Your task to perform on an android device: Go to Yahoo.com Image 0: 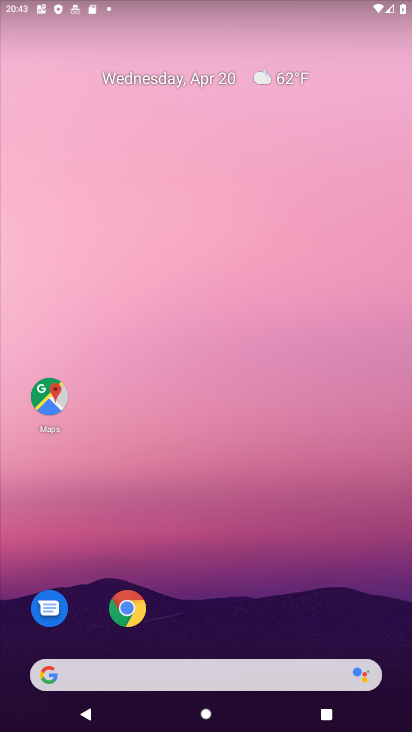
Step 0: drag from (296, 506) to (375, 1)
Your task to perform on an android device: Go to Yahoo.com Image 1: 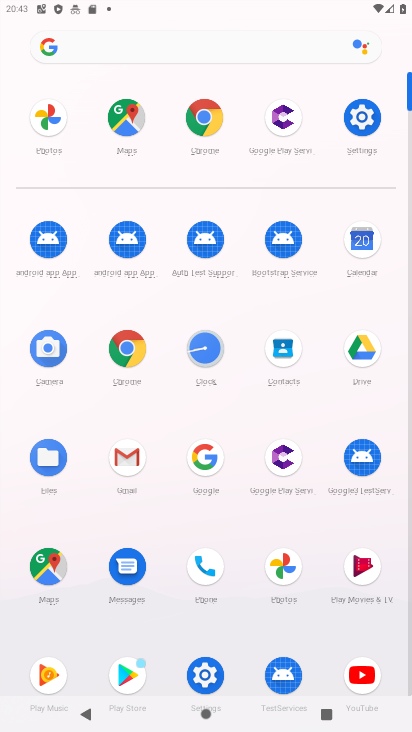
Step 1: click (198, 127)
Your task to perform on an android device: Go to Yahoo.com Image 2: 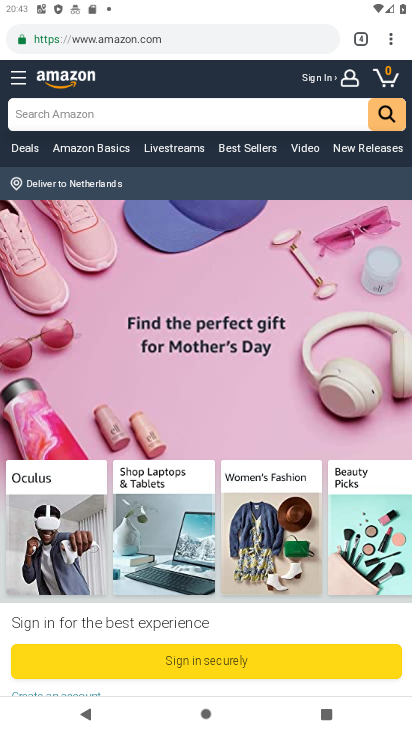
Step 2: drag from (392, 38) to (309, 67)
Your task to perform on an android device: Go to Yahoo.com Image 3: 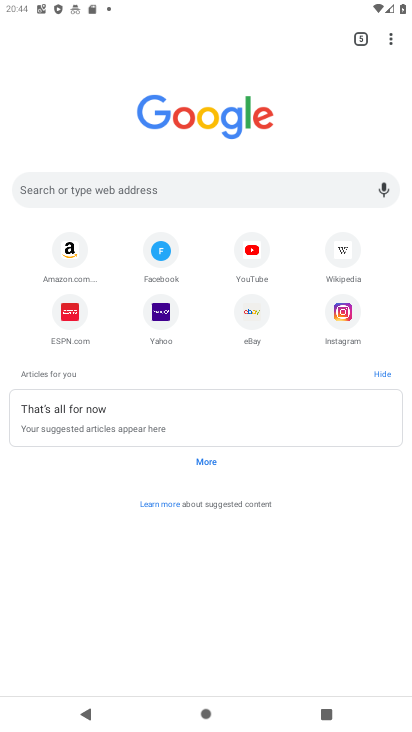
Step 3: click (158, 321)
Your task to perform on an android device: Go to Yahoo.com Image 4: 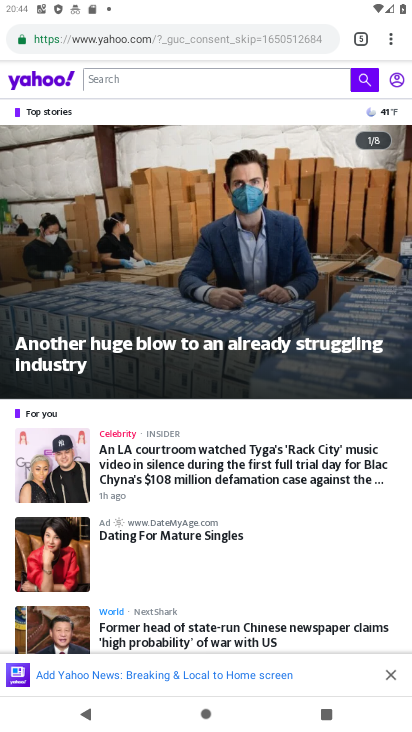
Step 4: task complete